Your task to perform on an android device: turn on improve location accuracy Image 0: 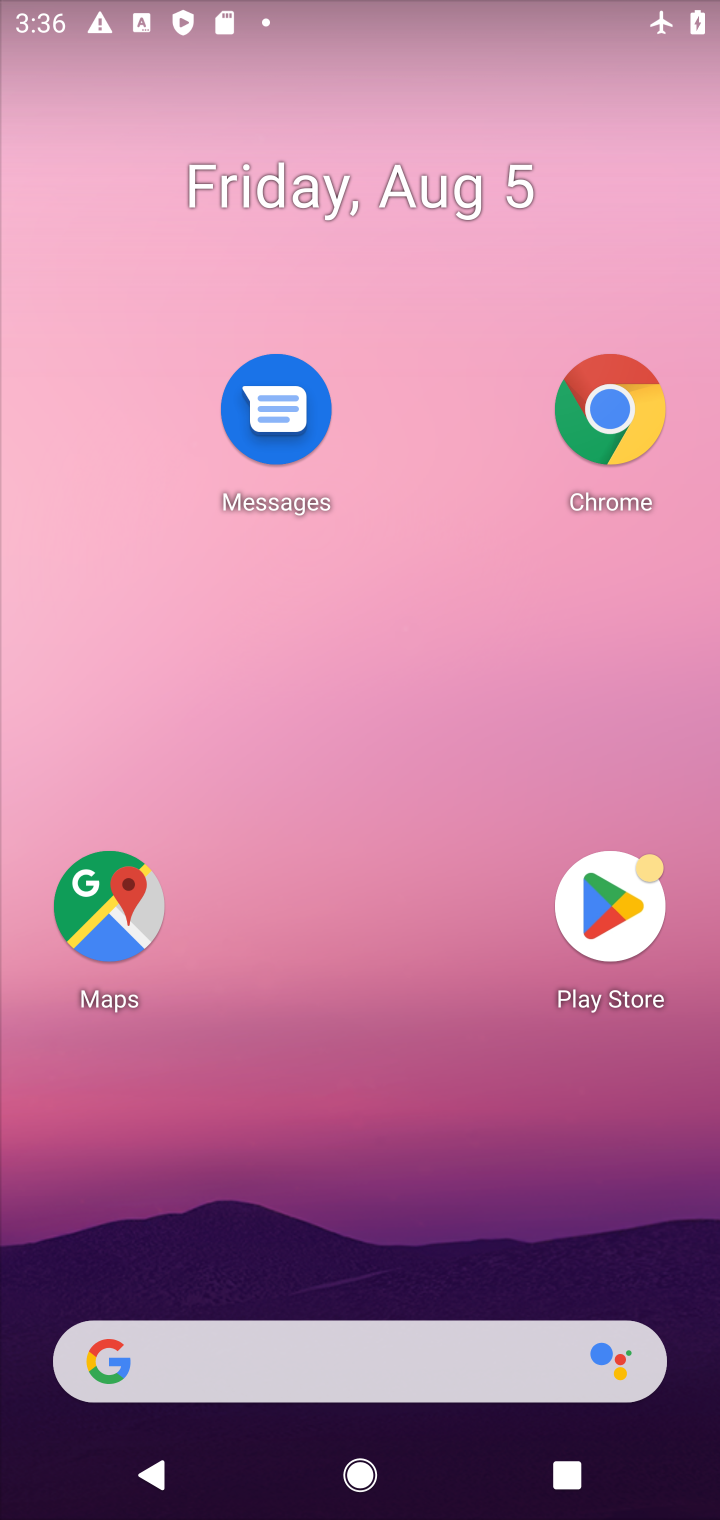
Step 0: drag from (343, 1061) to (389, 371)
Your task to perform on an android device: turn on improve location accuracy Image 1: 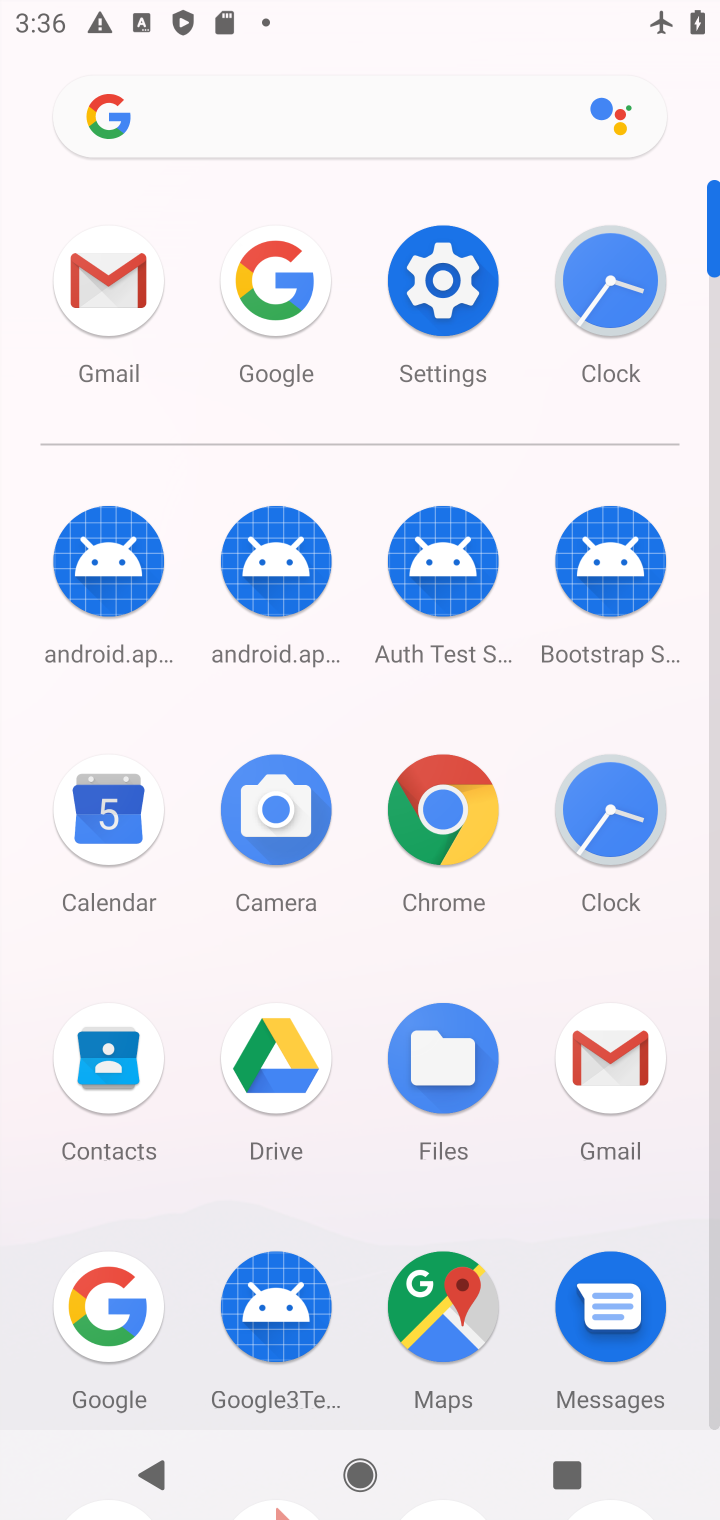
Step 1: click (456, 321)
Your task to perform on an android device: turn on improve location accuracy Image 2: 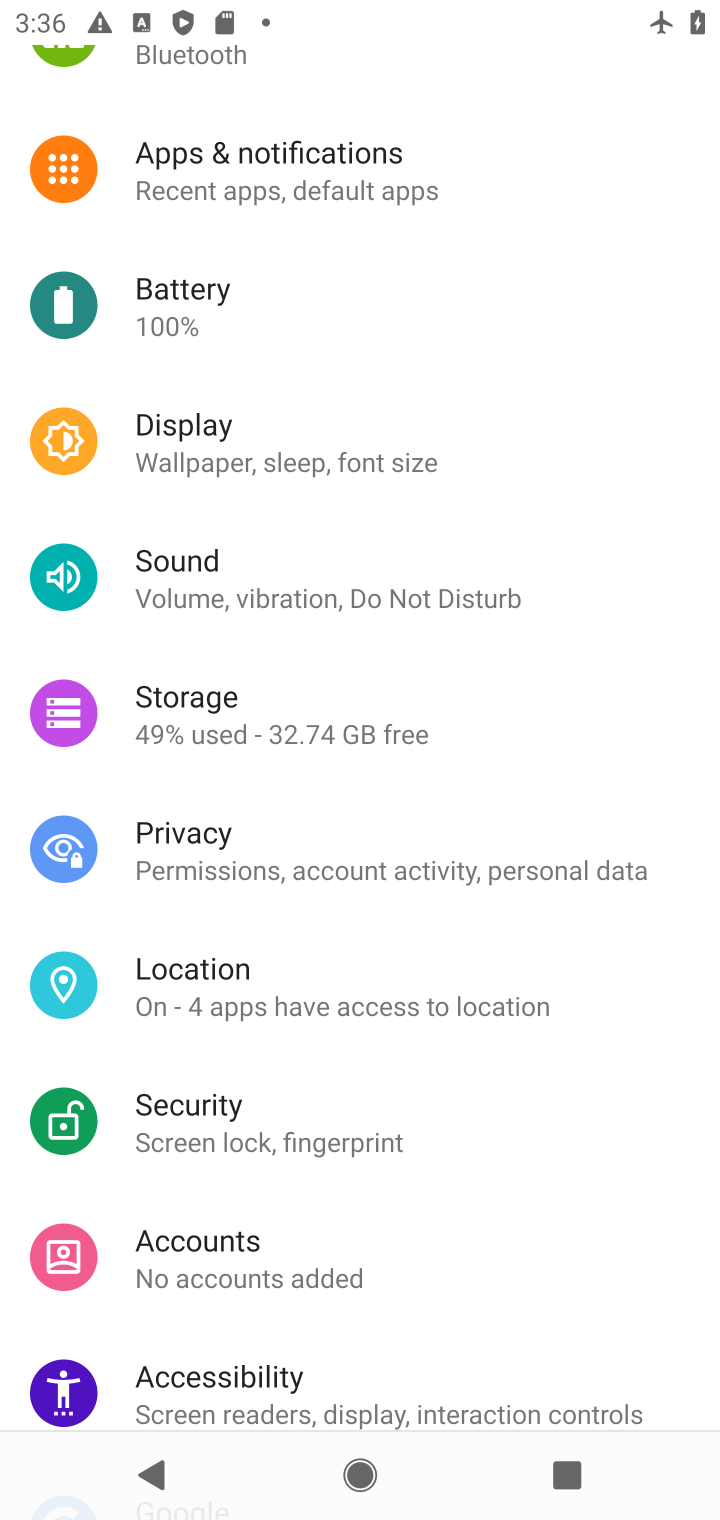
Step 2: click (185, 961)
Your task to perform on an android device: turn on improve location accuracy Image 3: 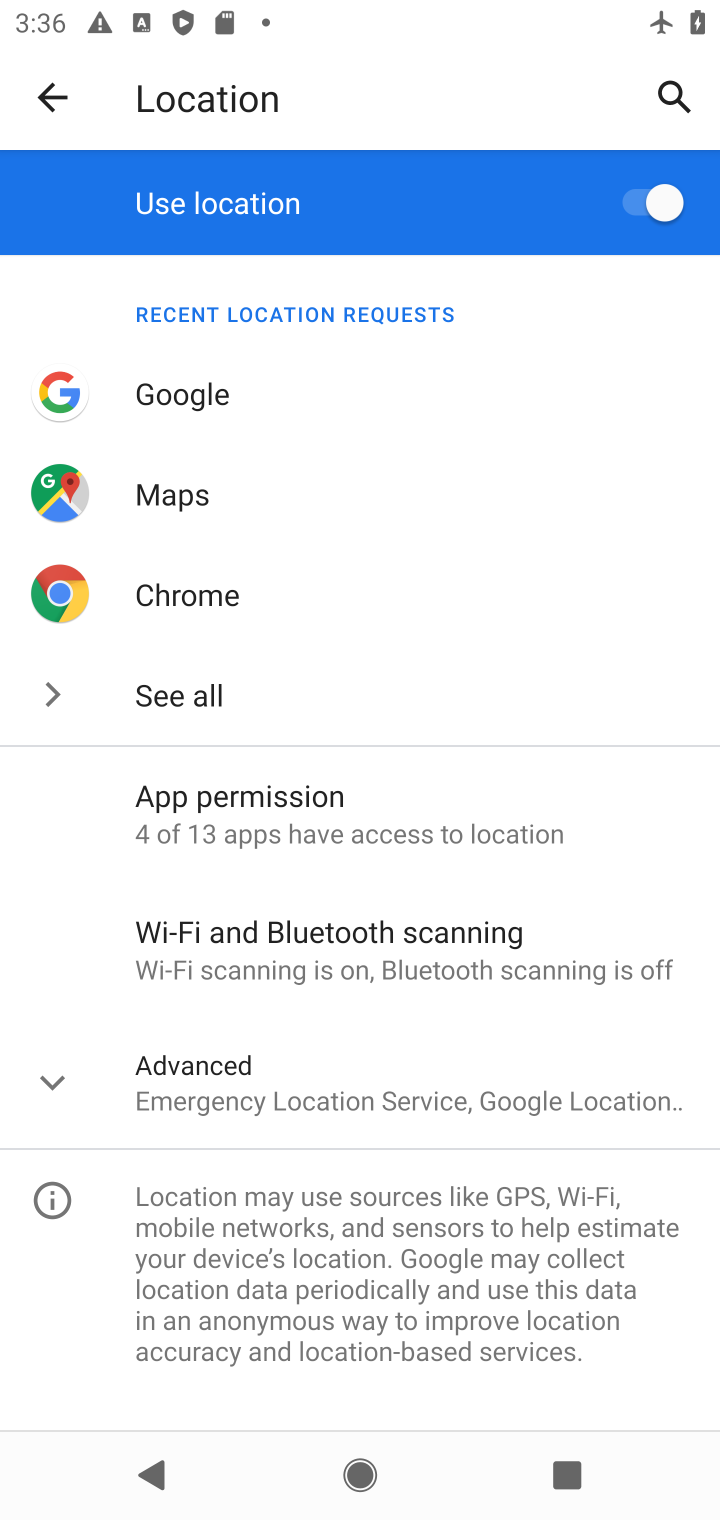
Step 3: click (192, 1060)
Your task to perform on an android device: turn on improve location accuracy Image 4: 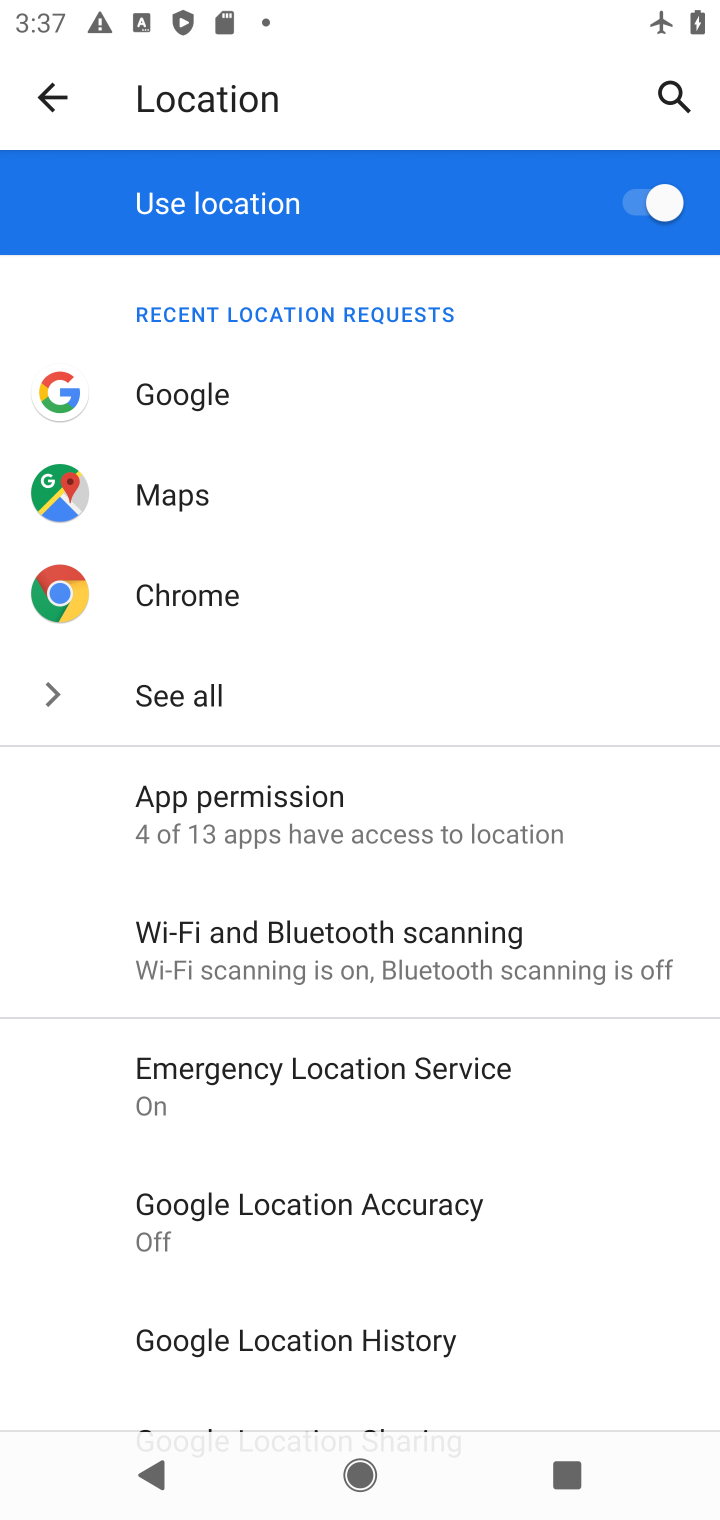
Step 4: click (282, 1208)
Your task to perform on an android device: turn on improve location accuracy Image 5: 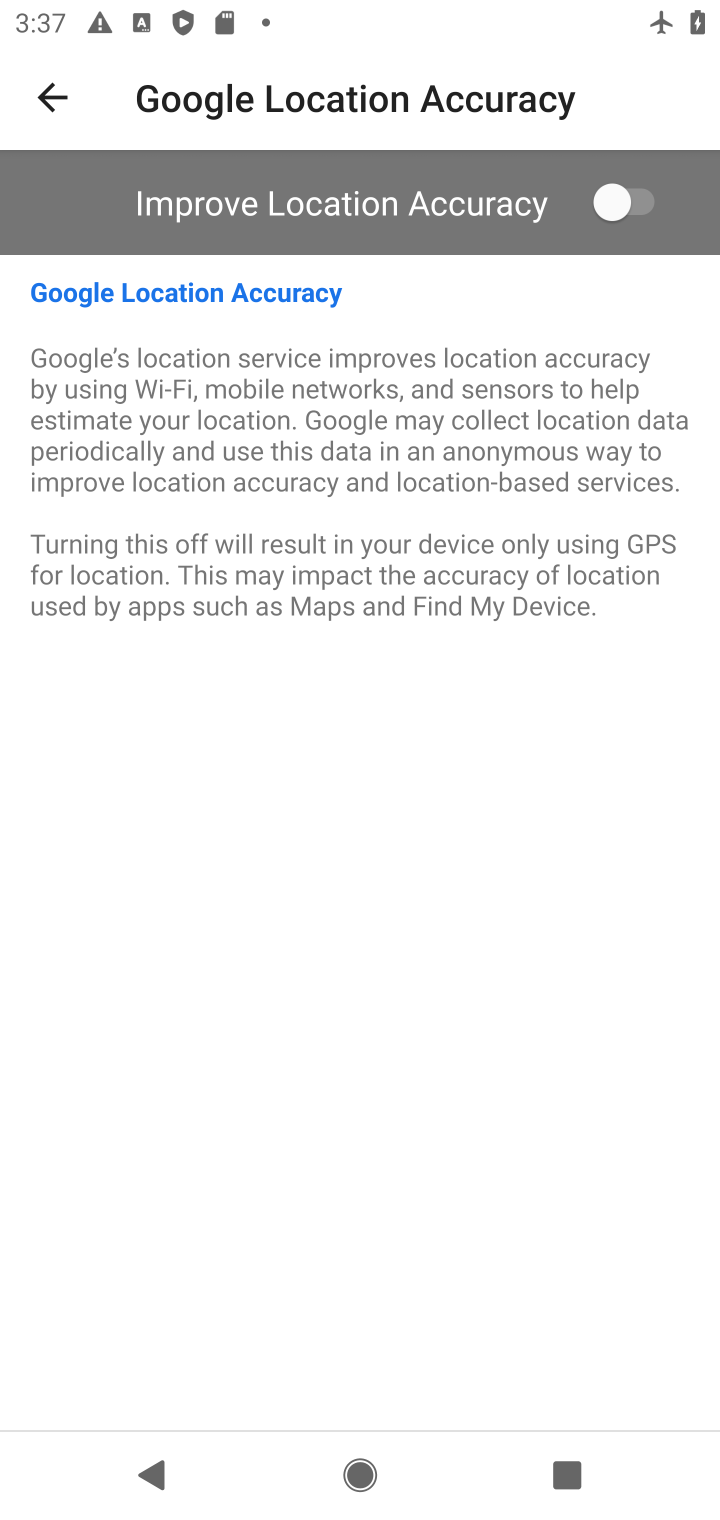
Step 5: click (628, 210)
Your task to perform on an android device: turn on improve location accuracy Image 6: 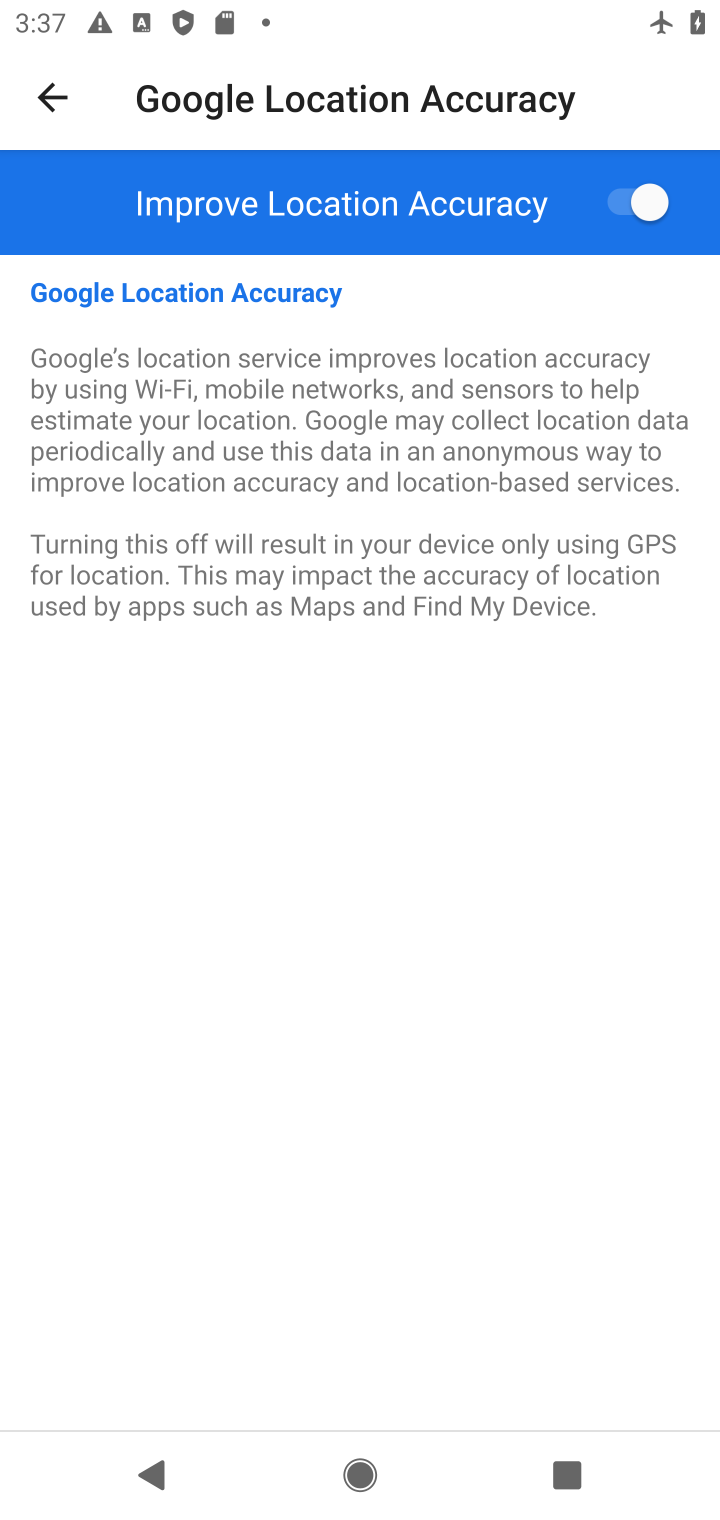
Step 6: task complete